Your task to perform on an android device: open wifi settings Image 0: 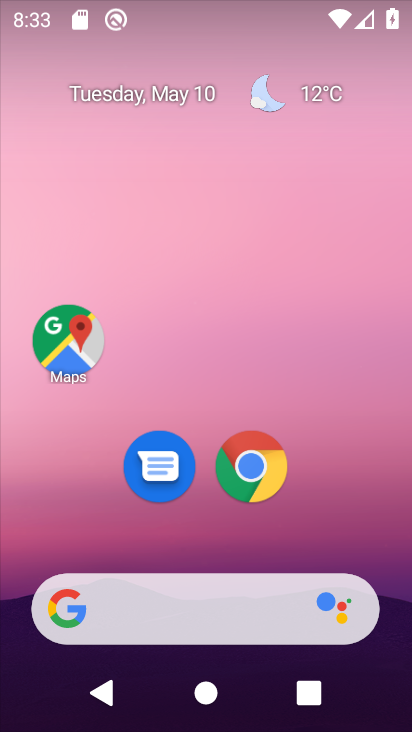
Step 0: click (281, 95)
Your task to perform on an android device: open wifi settings Image 1: 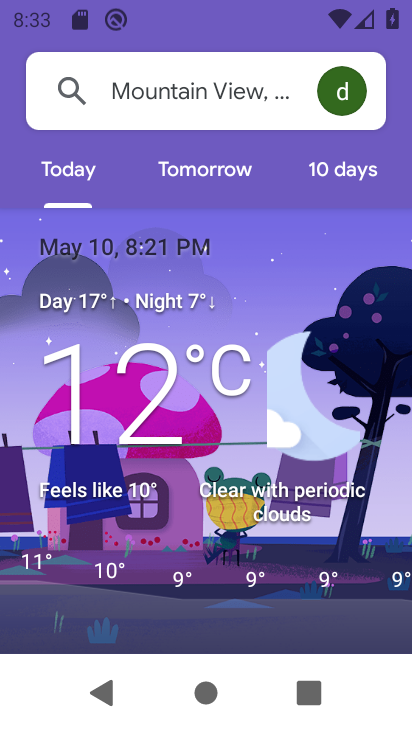
Step 1: press home button
Your task to perform on an android device: open wifi settings Image 2: 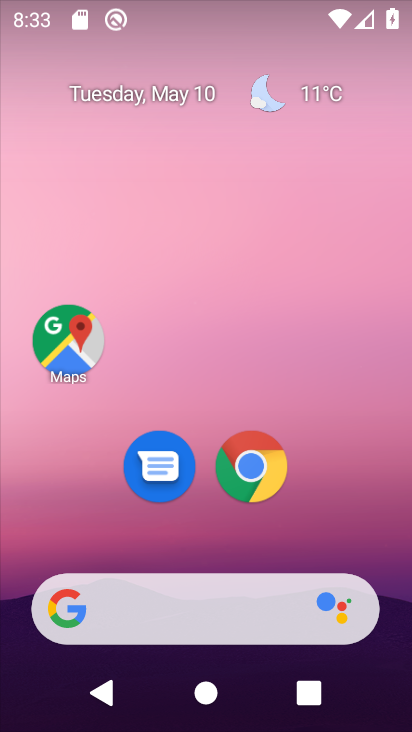
Step 2: drag from (202, 481) to (296, 2)
Your task to perform on an android device: open wifi settings Image 3: 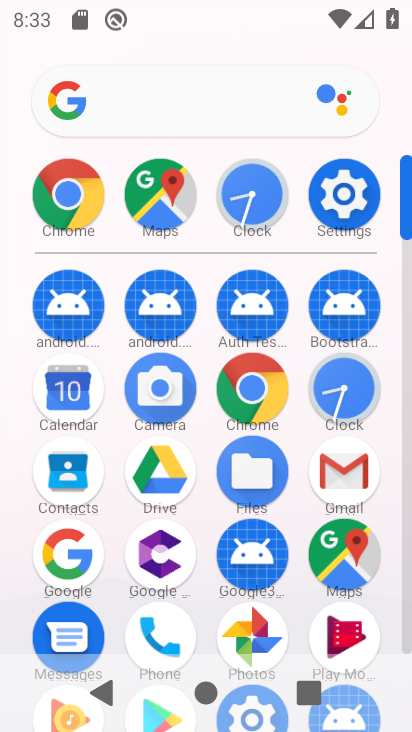
Step 3: click (342, 215)
Your task to perform on an android device: open wifi settings Image 4: 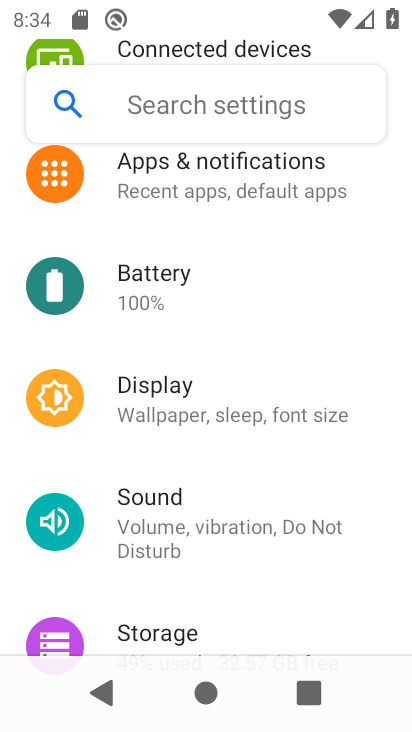
Step 4: drag from (240, 237) to (225, 605)
Your task to perform on an android device: open wifi settings Image 5: 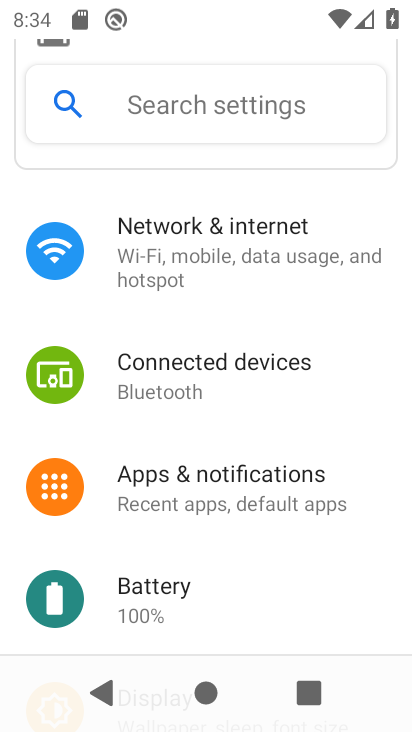
Step 5: click (205, 258)
Your task to perform on an android device: open wifi settings Image 6: 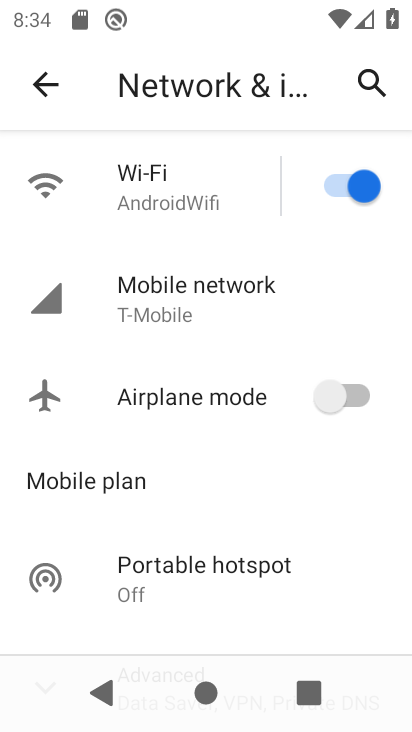
Step 6: click (206, 210)
Your task to perform on an android device: open wifi settings Image 7: 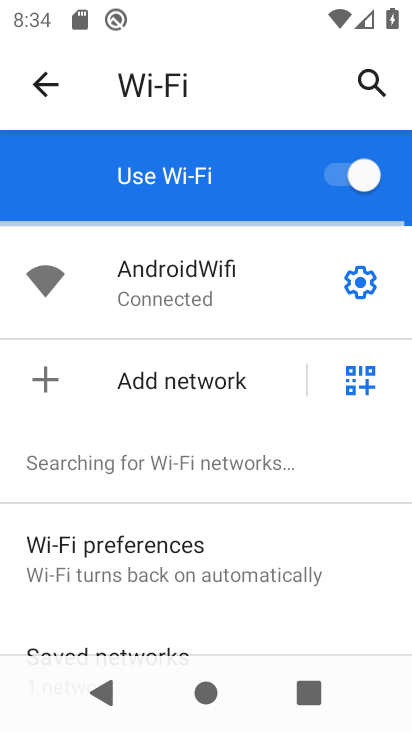
Step 7: task complete